Your task to perform on an android device: turn off sleep mode Image 0: 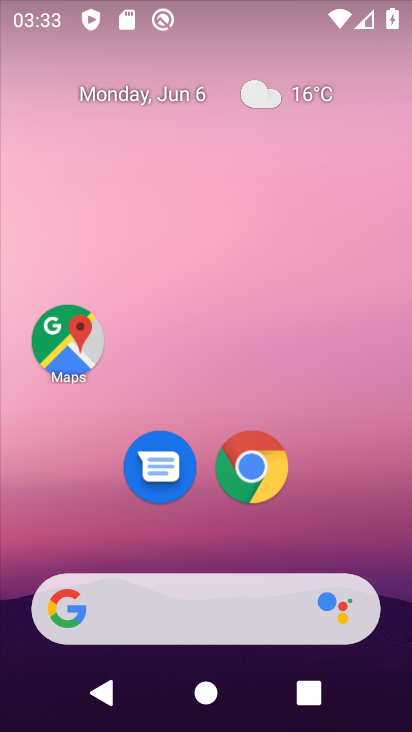
Step 0: drag from (216, 542) to (249, 69)
Your task to perform on an android device: turn off sleep mode Image 1: 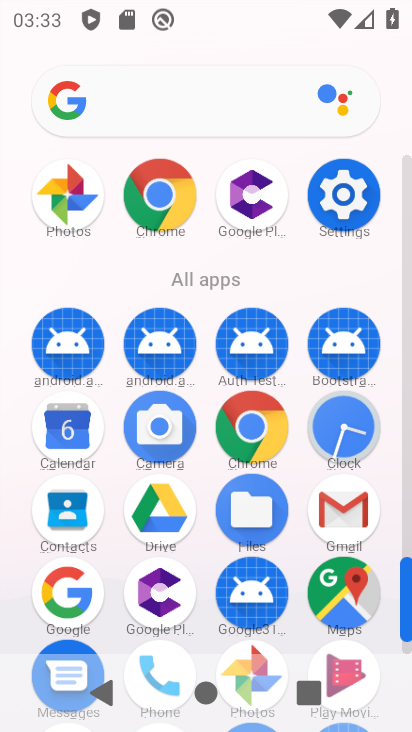
Step 1: click (332, 190)
Your task to perform on an android device: turn off sleep mode Image 2: 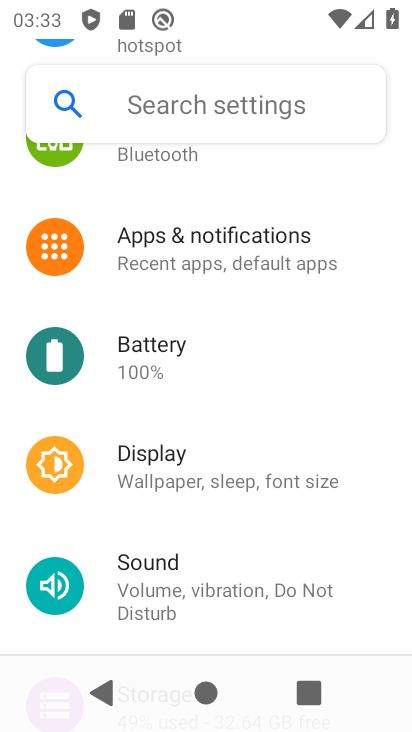
Step 2: click (203, 457)
Your task to perform on an android device: turn off sleep mode Image 3: 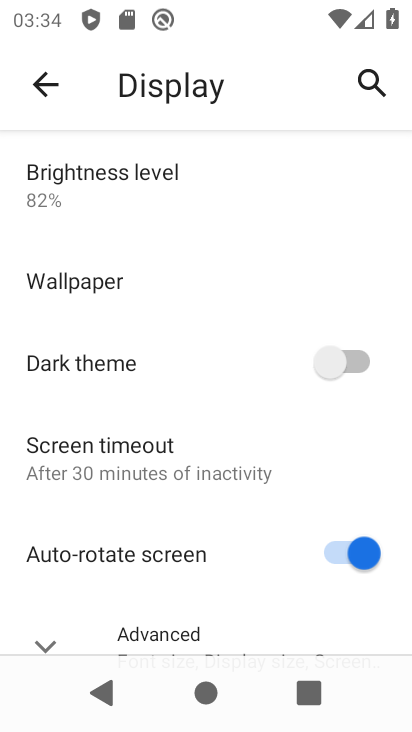
Step 3: click (157, 628)
Your task to perform on an android device: turn off sleep mode Image 4: 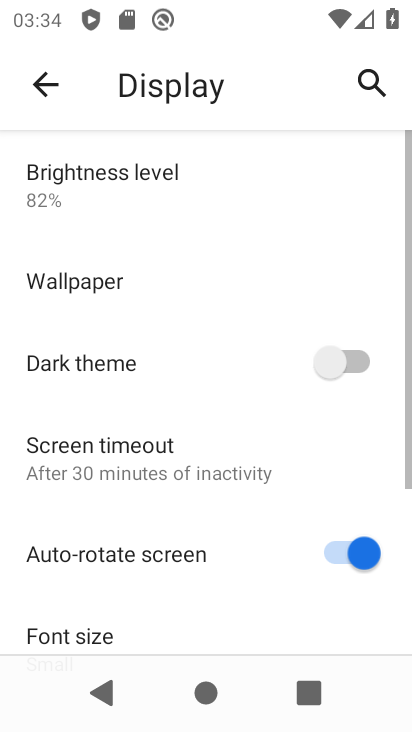
Step 4: task complete